Your task to perform on an android device: delete a single message in the gmail app Image 0: 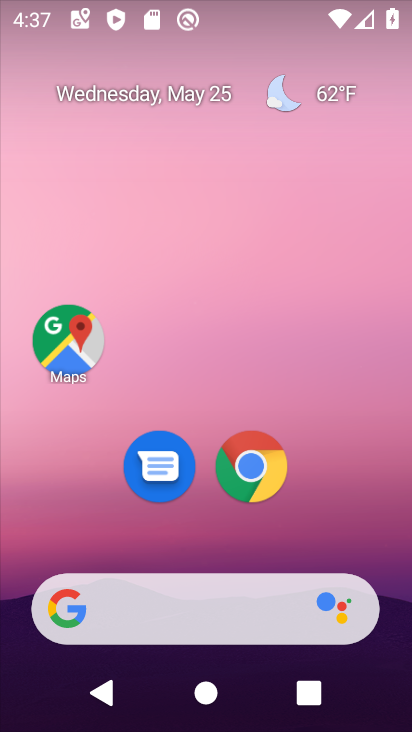
Step 0: drag from (338, 536) to (266, 14)
Your task to perform on an android device: delete a single message in the gmail app Image 1: 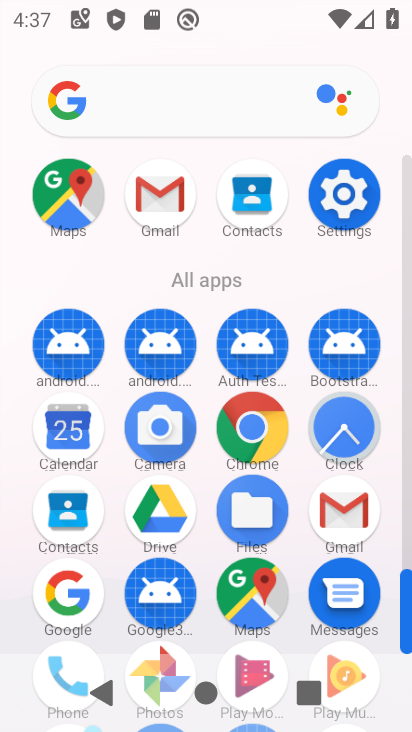
Step 1: click (160, 191)
Your task to perform on an android device: delete a single message in the gmail app Image 2: 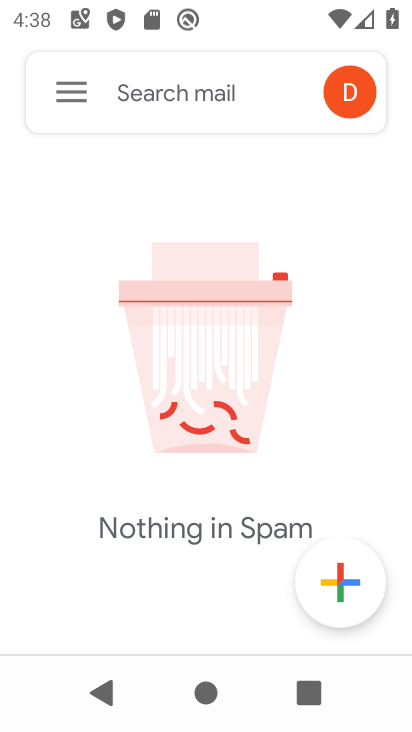
Step 2: click (75, 93)
Your task to perform on an android device: delete a single message in the gmail app Image 3: 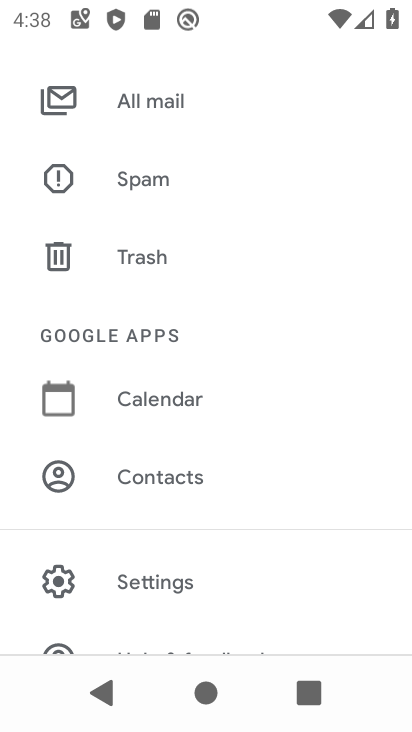
Step 3: click (141, 92)
Your task to perform on an android device: delete a single message in the gmail app Image 4: 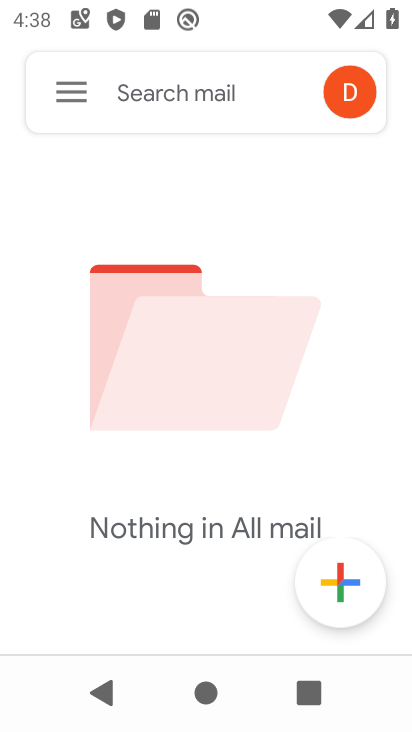
Step 4: click (65, 101)
Your task to perform on an android device: delete a single message in the gmail app Image 5: 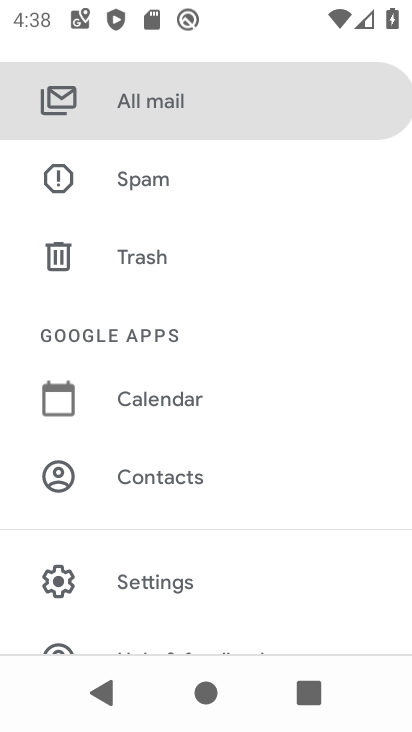
Step 5: drag from (146, 526) to (200, 386)
Your task to perform on an android device: delete a single message in the gmail app Image 6: 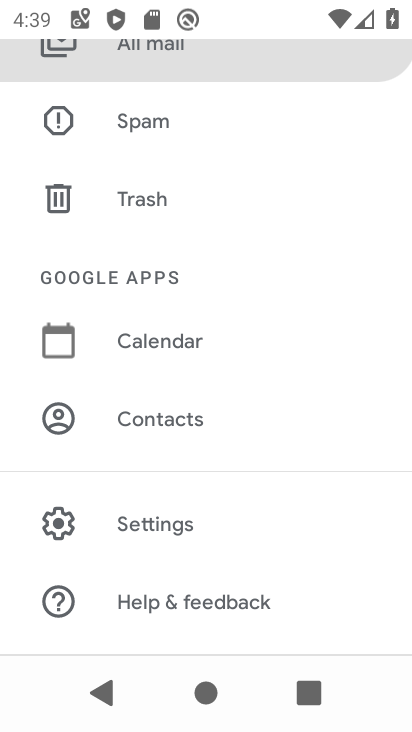
Step 6: drag from (236, 382) to (237, 519)
Your task to perform on an android device: delete a single message in the gmail app Image 7: 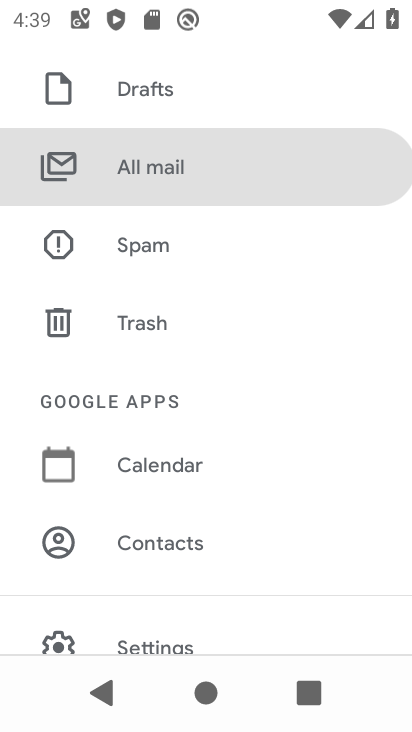
Step 7: drag from (205, 287) to (244, 478)
Your task to perform on an android device: delete a single message in the gmail app Image 8: 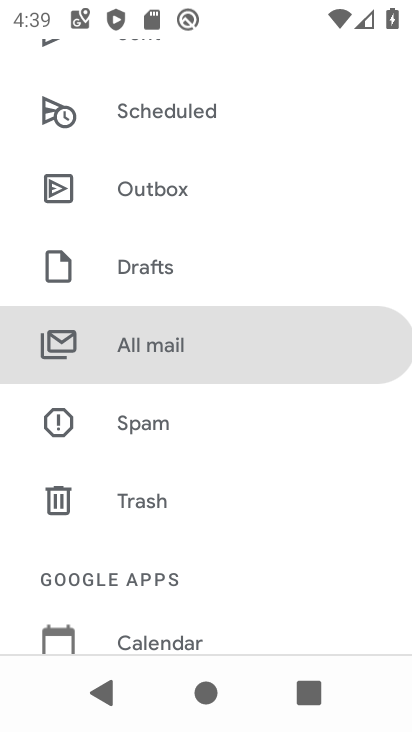
Step 8: drag from (245, 267) to (274, 445)
Your task to perform on an android device: delete a single message in the gmail app Image 9: 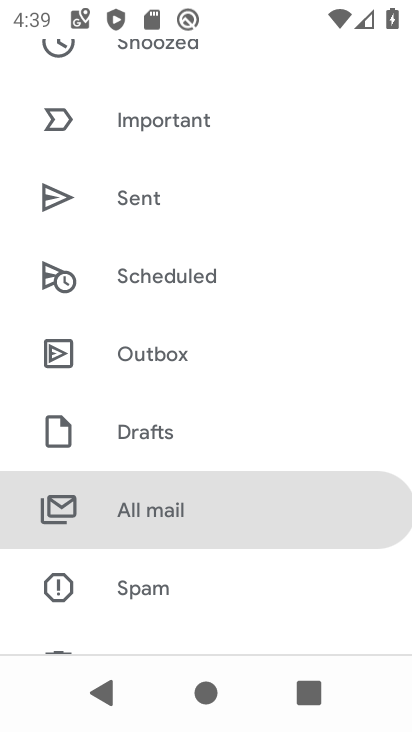
Step 9: drag from (234, 253) to (259, 360)
Your task to perform on an android device: delete a single message in the gmail app Image 10: 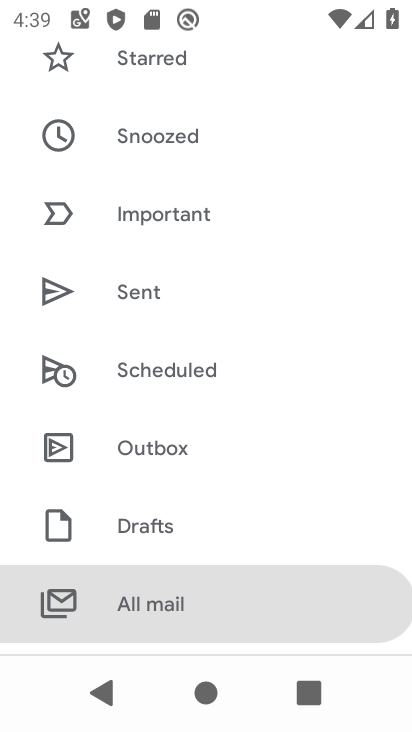
Step 10: click (161, 144)
Your task to perform on an android device: delete a single message in the gmail app Image 11: 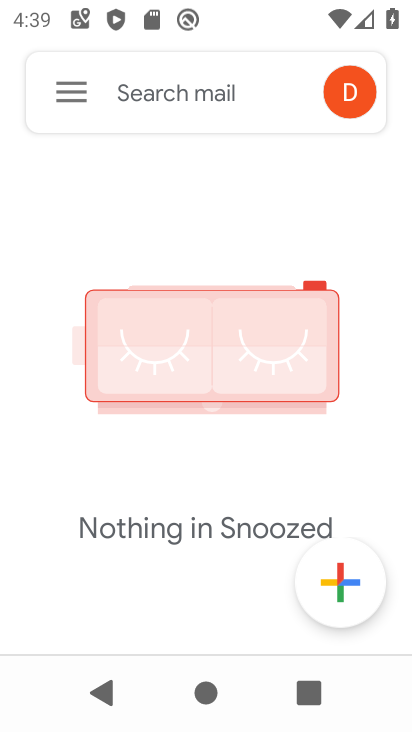
Step 11: click (64, 87)
Your task to perform on an android device: delete a single message in the gmail app Image 12: 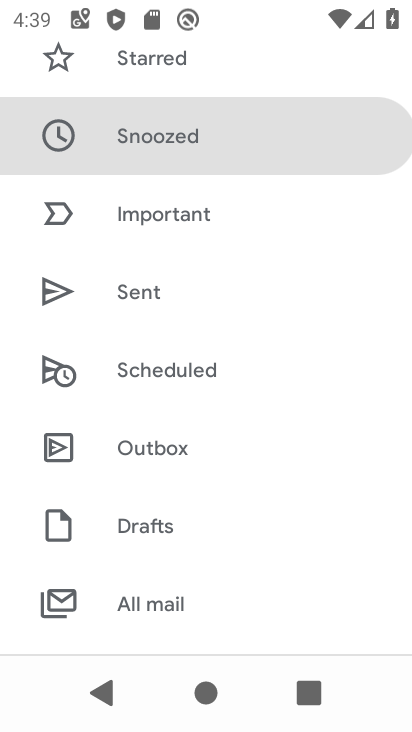
Step 12: drag from (224, 201) to (251, 307)
Your task to perform on an android device: delete a single message in the gmail app Image 13: 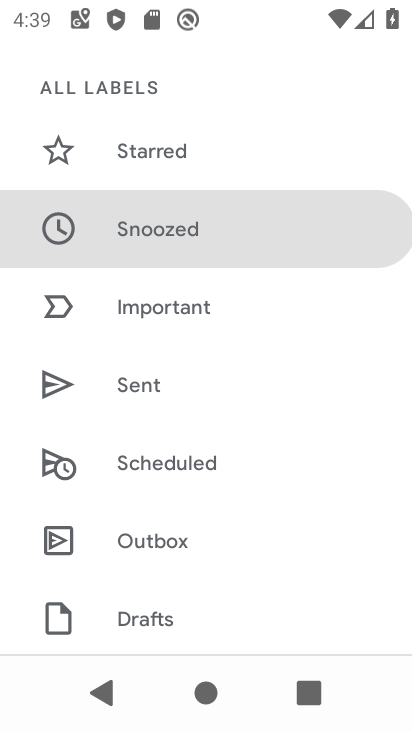
Step 13: drag from (227, 143) to (202, 385)
Your task to perform on an android device: delete a single message in the gmail app Image 14: 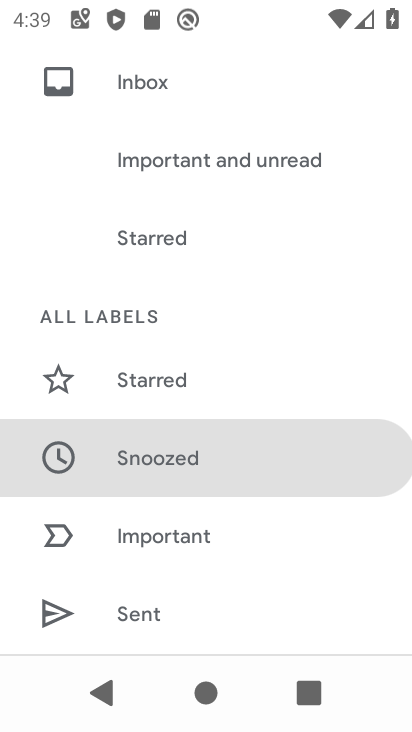
Step 14: drag from (205, 208) to (241, 365)
Your task to perform on an android device: delete a single message in the gmail app Image 15: 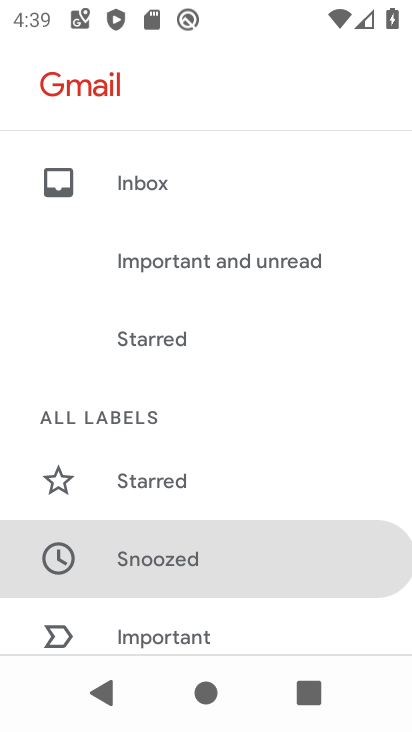
Step 15: click (128, 189)
Your task to perform on an android device: delete a single message in the gmail app Image 16: 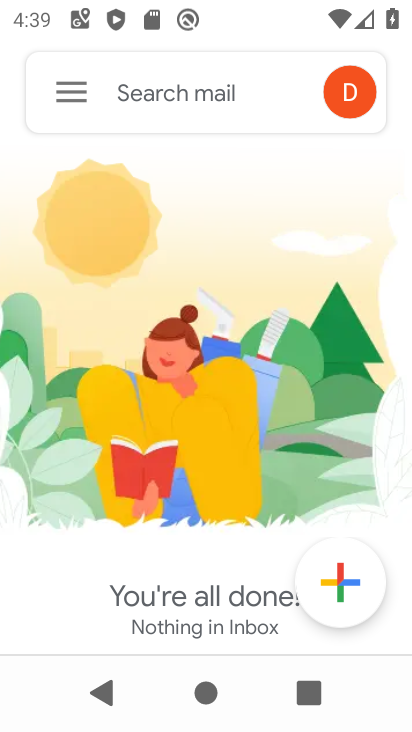
Step 16: task complete